Your task to perform on an android device: open wifi settings Image 0: 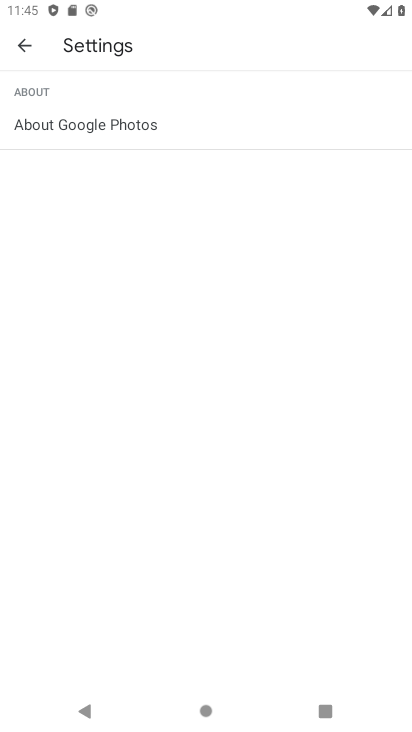
Step 0: press back button
Your task to perform on an android device: open wifi settings Image 1: 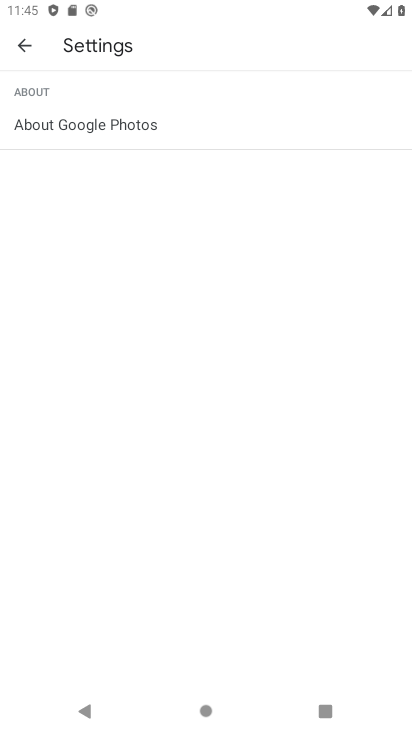
Step 1: press back button
Your task to perform on an android device: open wifi settings Image 2: 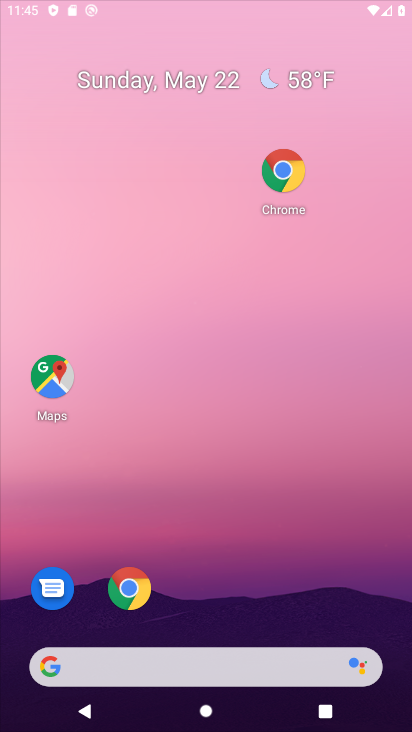
Step 2: press back button
Your task to perform on an android device: open wifi settings Image 3: 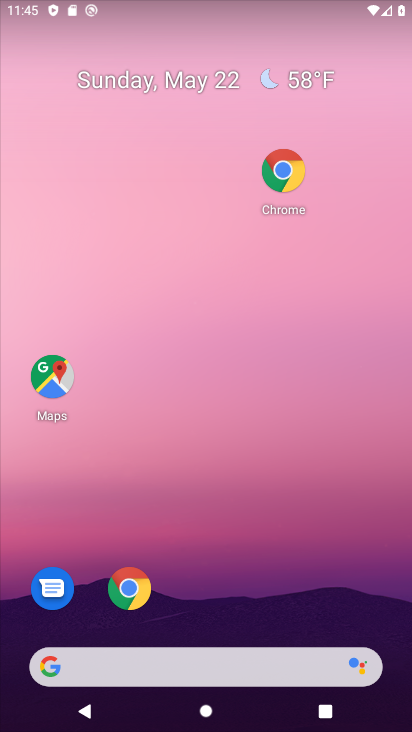
Step 3: drag from (238, 700) to (168, 95)
Your task to perform on an android device: open wifi settings Image 4: 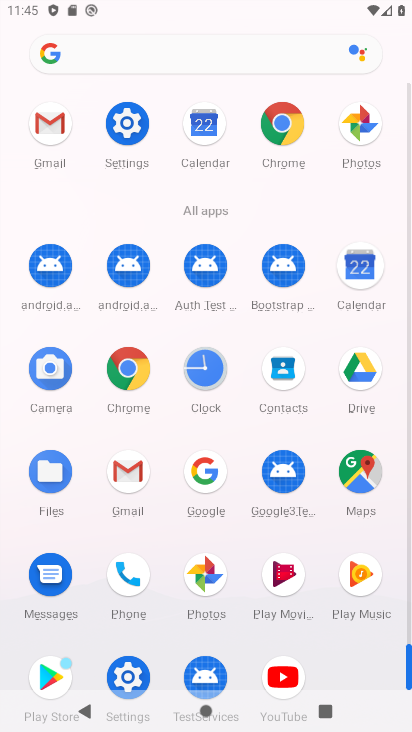
Step 4: click (136, 669)
Your task to perform on an android device: open wifi settings Image 5: 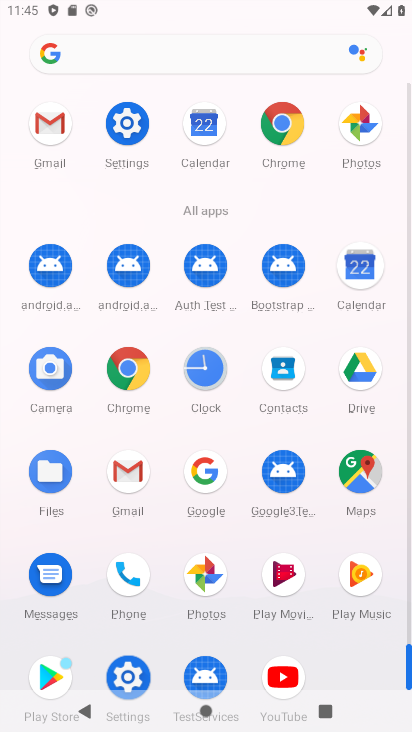
Step 5: click (136, 669)
Your task to perform on an android device: open wifi settings Image 6: 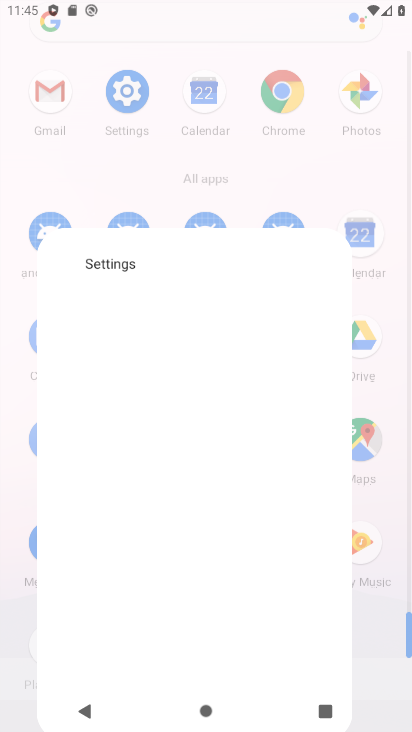
Step 6: click (136, 669)
Your task to perform on an android device: open wifi settings Image 7: 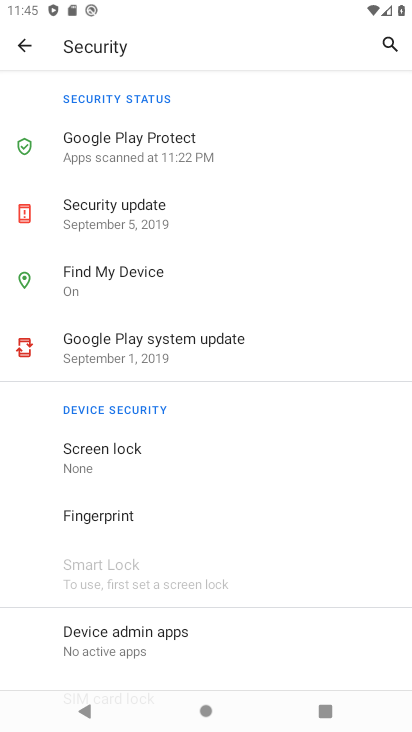
Step 7: drag from (151, 375) to (154, 494)
Your task to perform on an android device: open wifi settings Image 8: 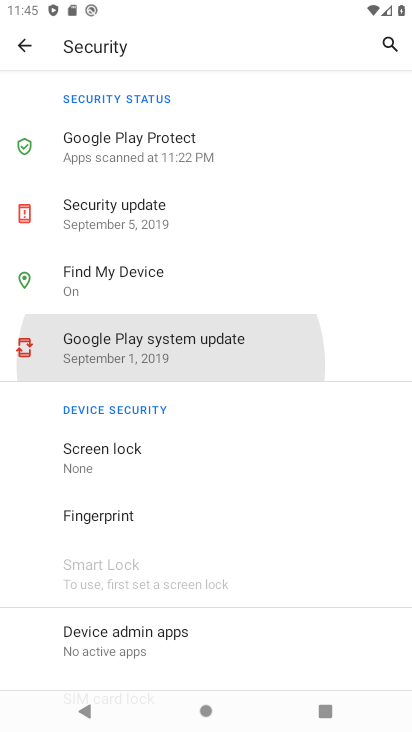
Step 8: drag from (126, 271) to (101, 499)
Your task to perform on an android device: open wifi settings Image 9: 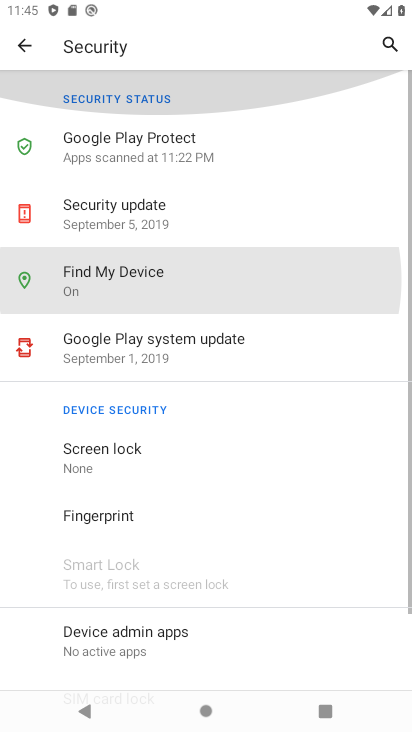
Step 9: drag from (137, 194) to (119, 465)
Your task to perform on an android device: open wifi settings Image 10: 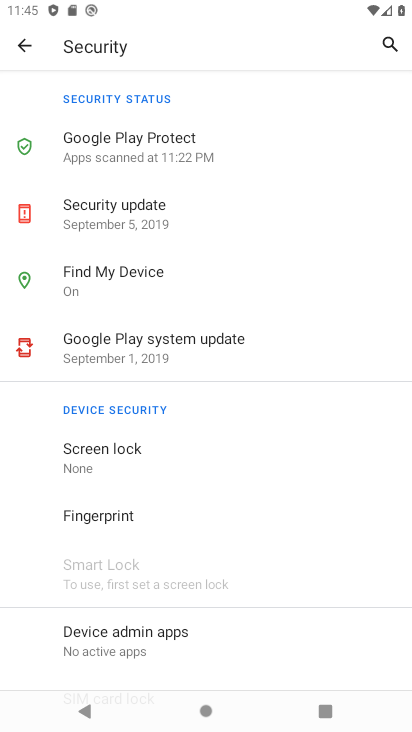
Step 10: click (22, 38)
Your task to perform on an android device: open wifi settings Image 11: 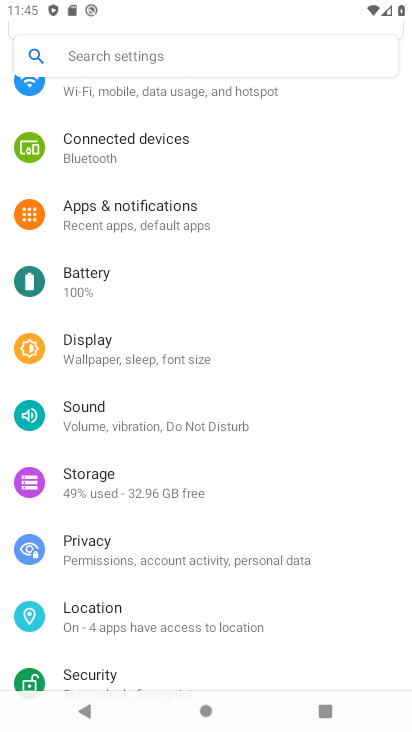
Step 11: drag from (138, 226) to (140, 582)
Your task to perform on an android device: open wifi settings Image 12: 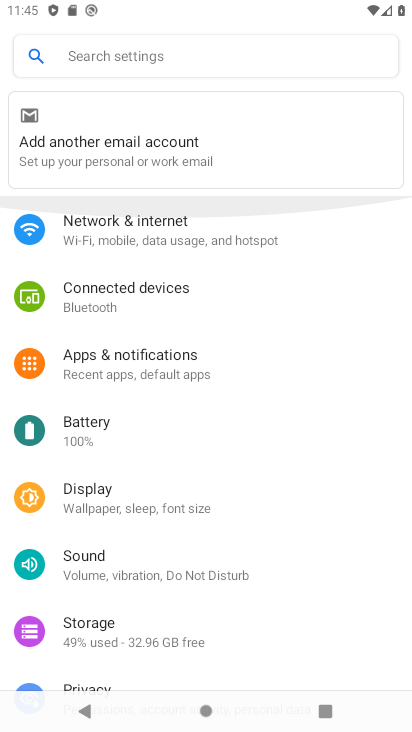
Step 12: drag from (147, 298) to (143, 650)
Your task to perform on an android device: open wifi settings Image 13: 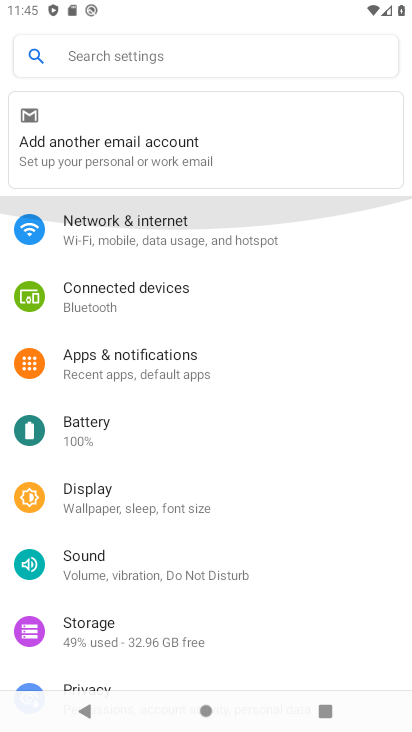
Step 13: drag from (120, 248) to (129, 596)
Your task to perform on an android device: open wifi settings Image 14: 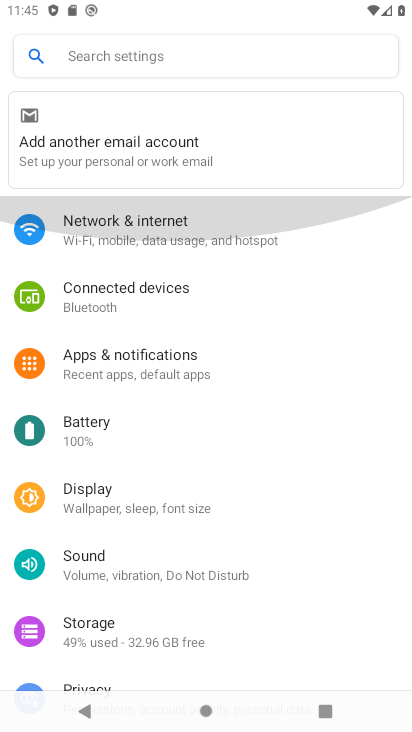
Step 14: drag from (126, 283) to (143, 650)
Your task to perform on an android device: open wifi settings Image 15: 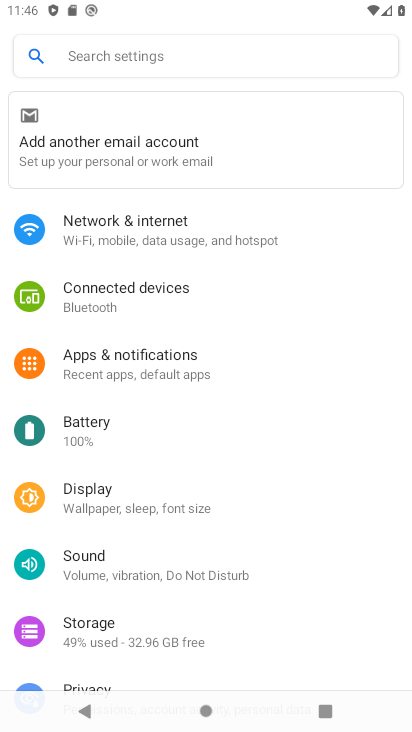
Step 15: click (137, 232)
Your task to perform on an android device: open wifi settings Image 16: 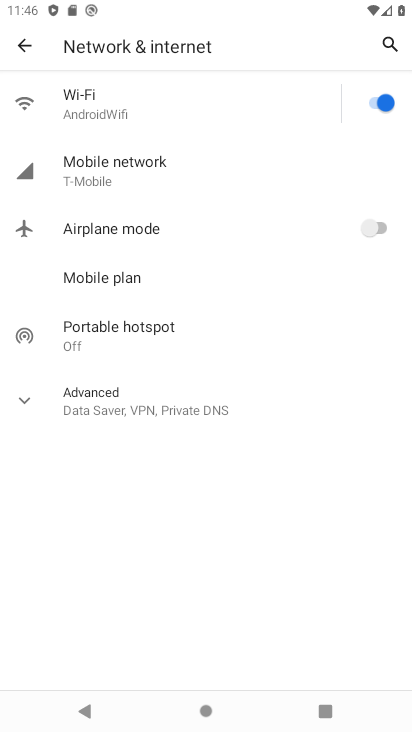
Step 16: task complete